Your task to perform on an android device: Turn on the flashlight Image 0: 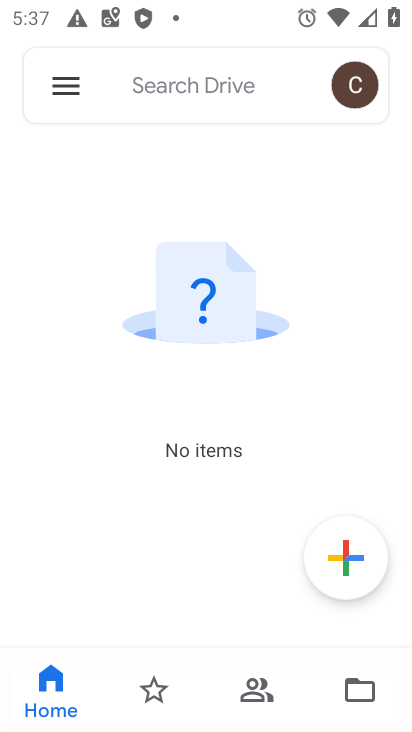
Step 0: press home button
Your task to perform on an android device: Turn on the flashlight Image 1: 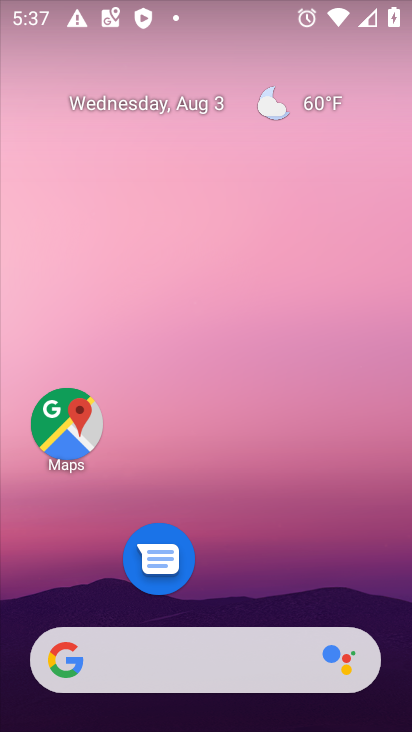
Step 1: drag from (259, 12) to (239, 461)
Your task to perform on an android device: Turn on the flashlight Image 2: 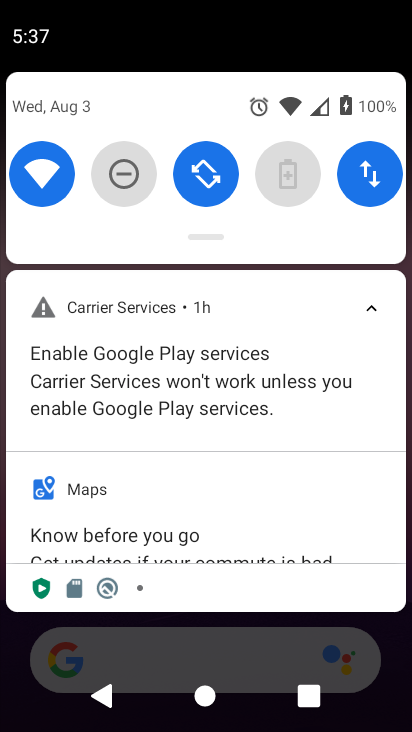
Step 2: drag from (218, 199) to (201, 619)
Your task to perform on an android device: Turn on the flashlight Image 3: 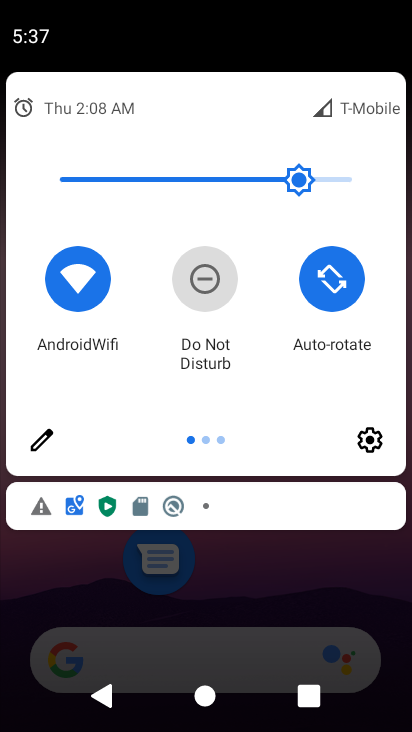
Step 3: drag from (329, 361) to (0, 408)
Your task to perform on an android device: Turn on the flashlight Image 4: 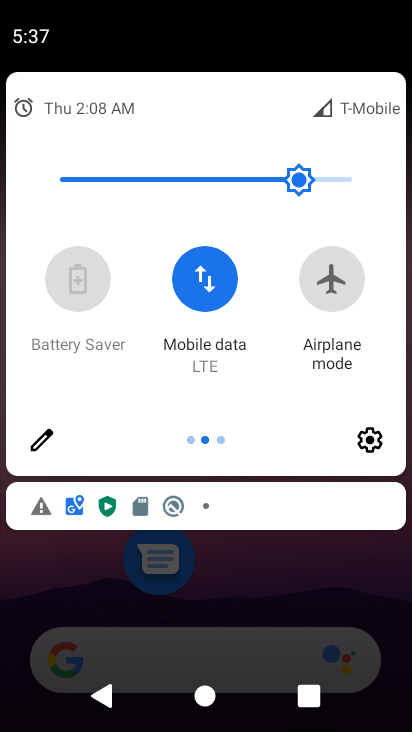
Step 4: drag from (363, 359) to (0, 357)
Your task to perform on an android device: Turn on the flashlight Image 5: 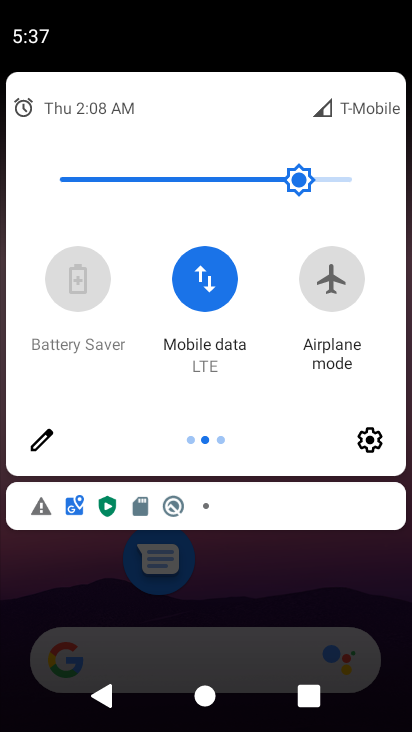
Step 5: drag from (349, 390) to (15, 417)
Your task to perform on an android device: Turn on the flashlight Image 6: 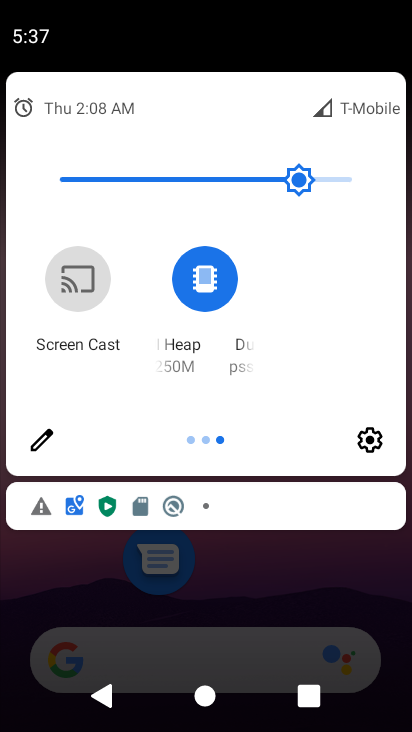
Step 6: click (48, 439)
Your task to perform on an android device: Turn on the flashlight Image 7: 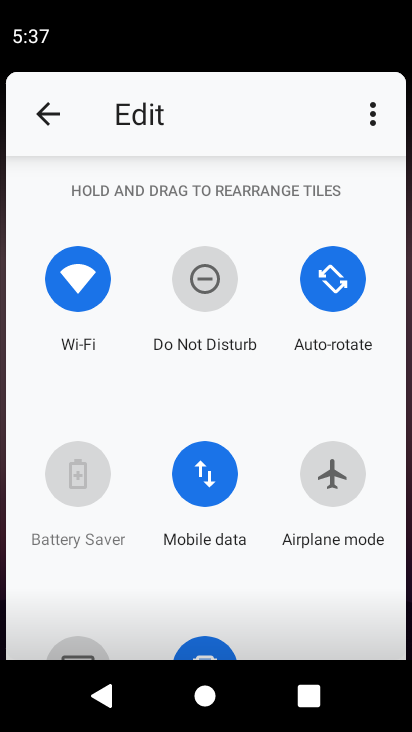
Step 7: task complete